Your task to perform on an android device: Show me the alarms in the clock app Image 0: 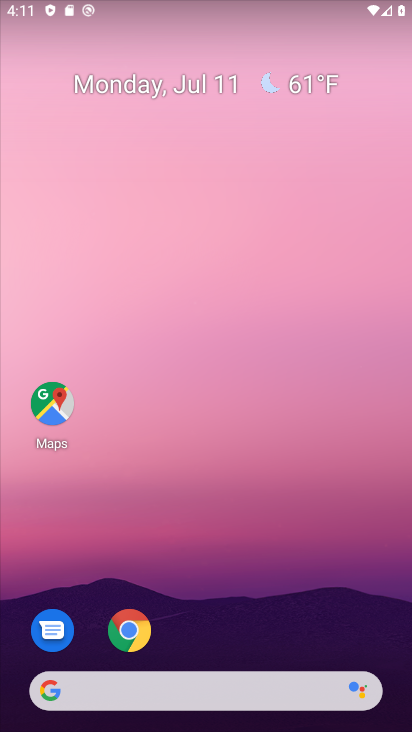
Step 0: drag from (283, 649) to (272, 19)
Your task to perform on an android device: Show me the alarms in the clock app Image 1: 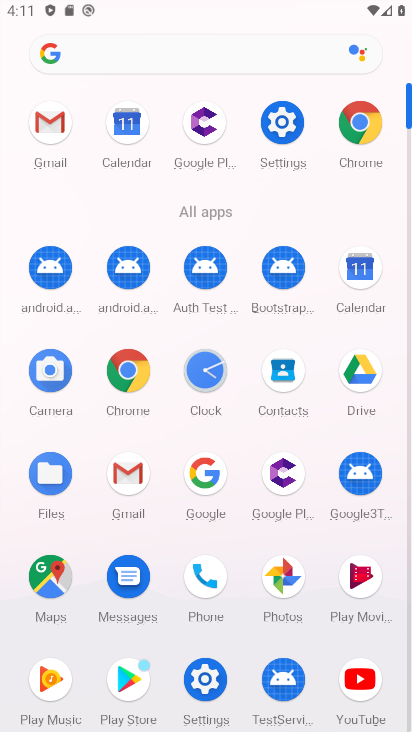
Step 1: click (202, 374)
Your task to perform on an android device: Show me the alarms in the clock app Image 2: 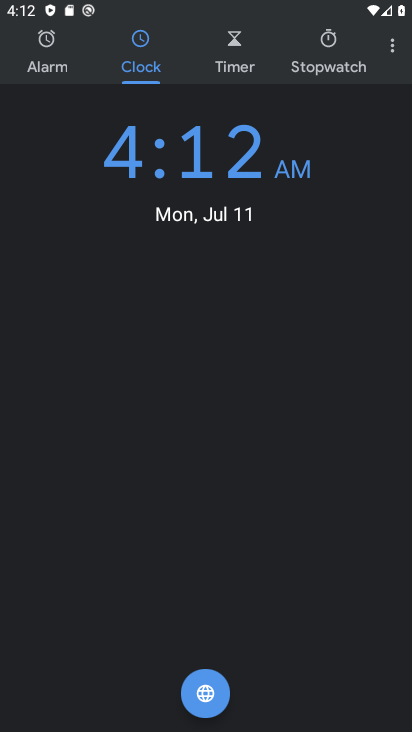
Step 2: click (29, 46)
Your task to perform on an android device: Show me the alarms in the clock app Image 3: 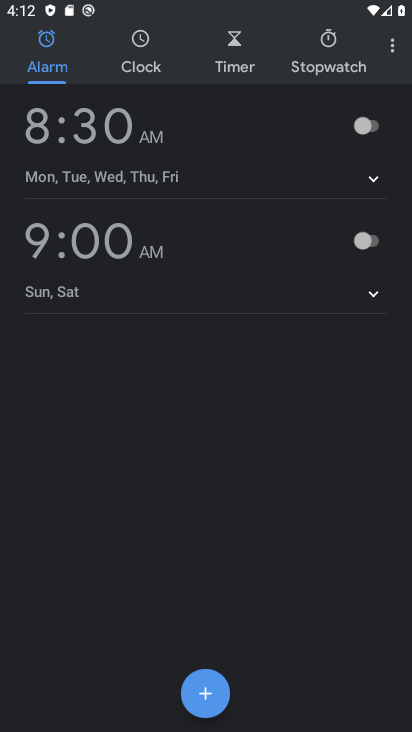
Step 3: task complete